Your task to perform on an android device: Open calendar and show me the first week of next month Image 0: 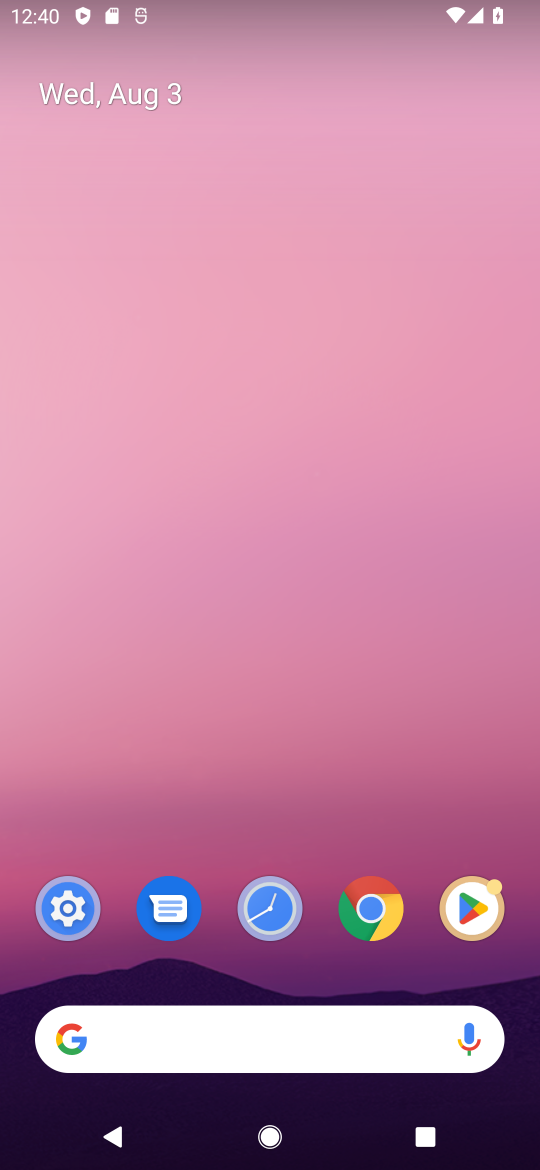
Step 0: drag from (210, 874) to (282, 217)
Your task to perform on an android device: Open calendar and show me the first week of next month Image 1: 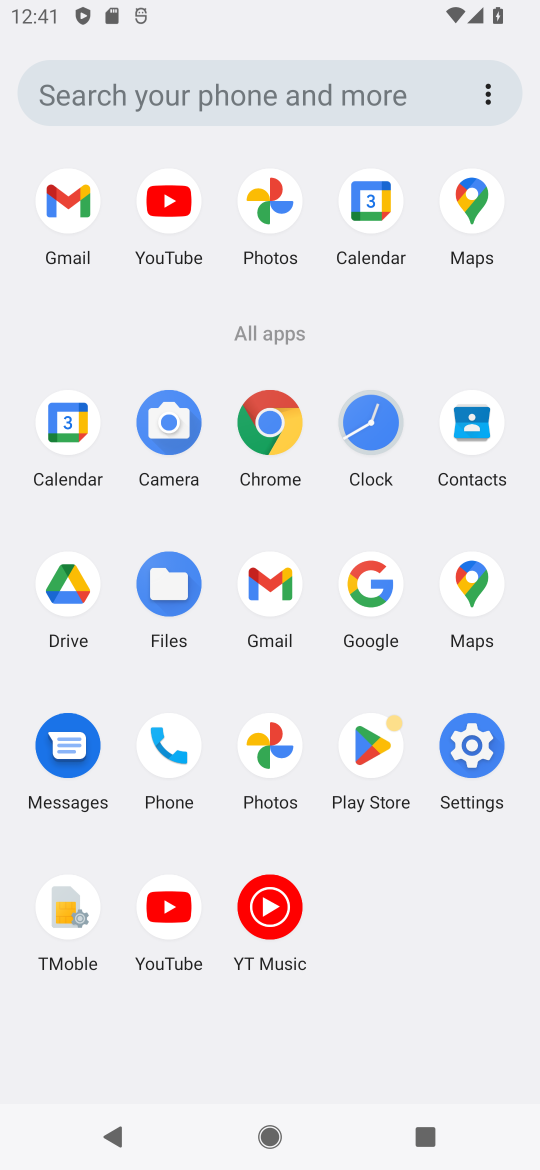
Step 1: click (76, 467)
Your task to perform on an android device: Open calendar and show me the first week of next month Image 2: 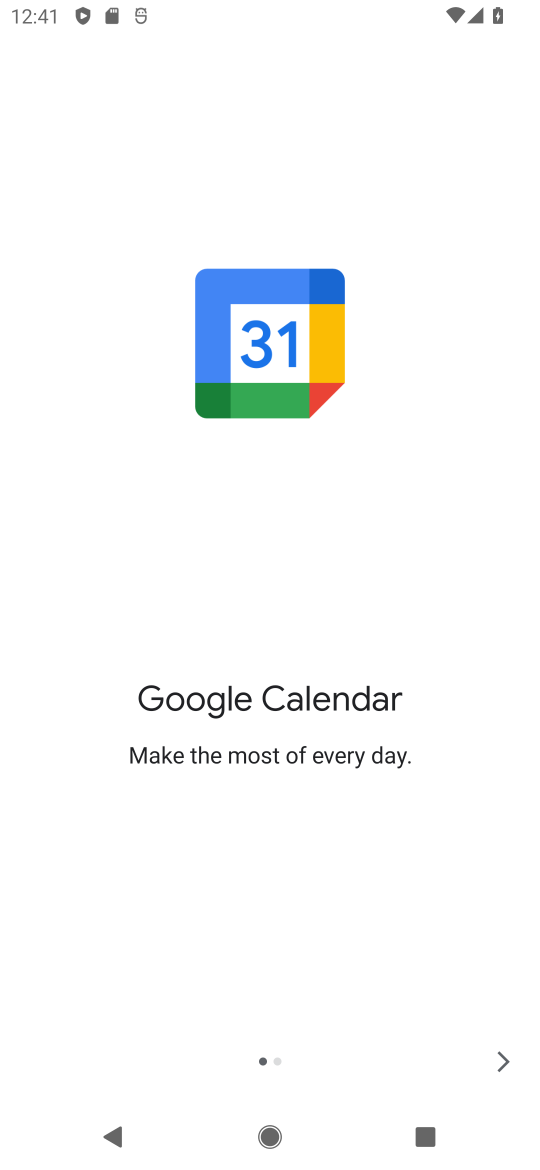
Step 2: click (491, 1062)
Your task to perform on an android device: Open calendar and show me the first week of next month Image 3: 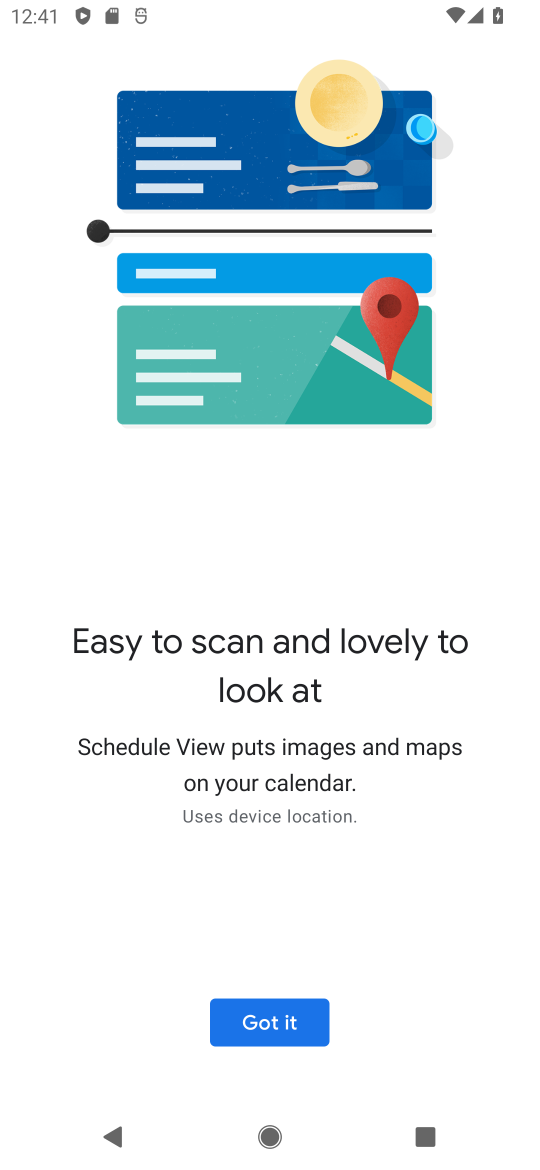
Step 3: click (264, 1023)
Your task to perform on an android device: Open calendar and show me the first week of next month Image 4: 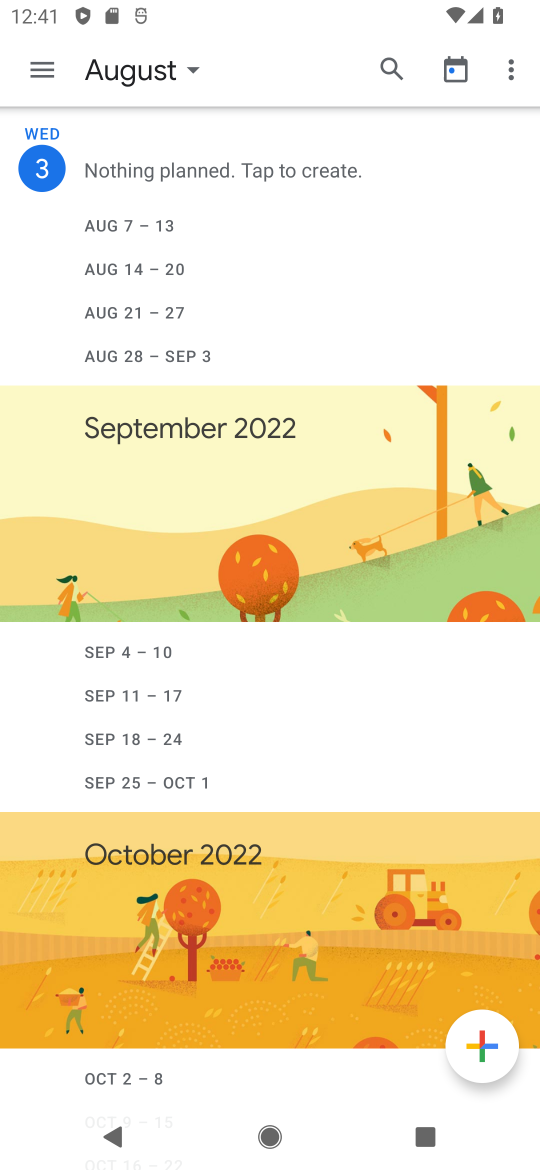
Step 4: click (43, 69)
Your task to perform on an android device: Open calendar and show me the first week of next month Image 5: 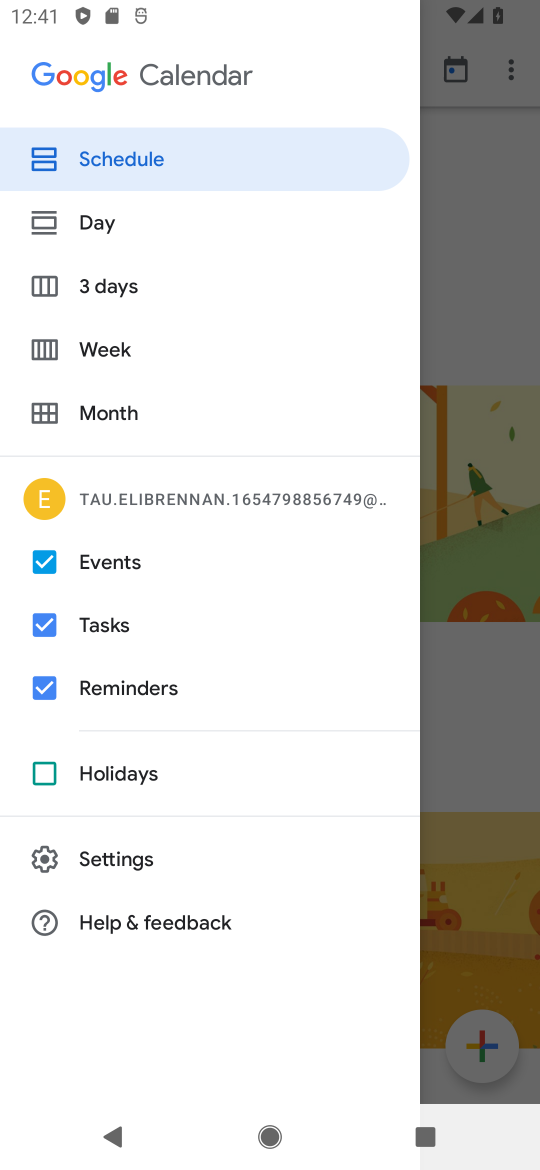
Step 5: click (86, 350)
Your task to perform on an android device: Open calendar and show me the first week of next month Image 6: 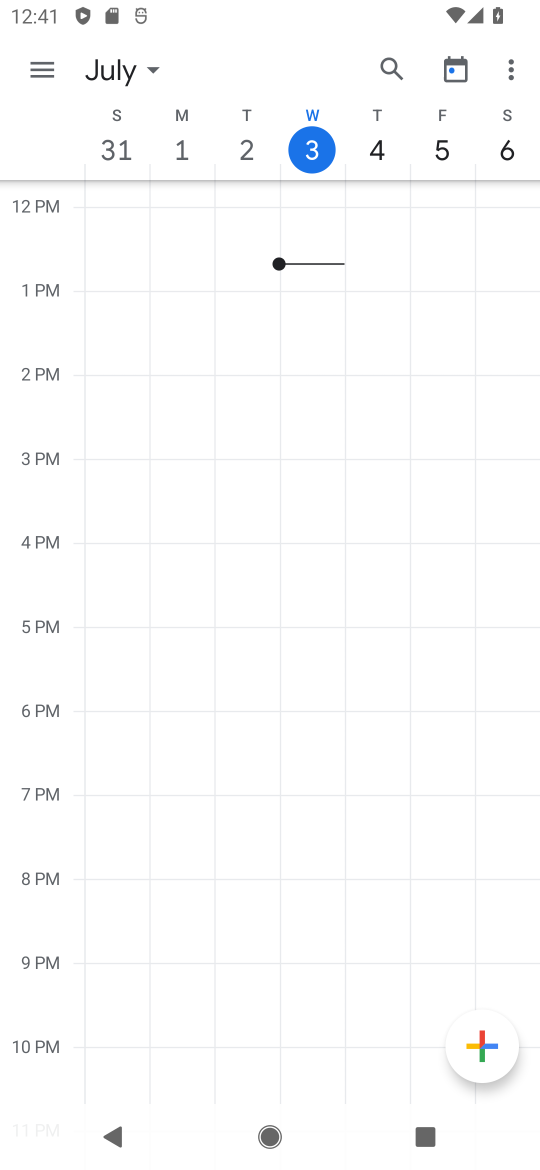
Step 6: click (126, 77)
Your task to perform on an android device: Open calendar and show me the first week of next month Image 7: 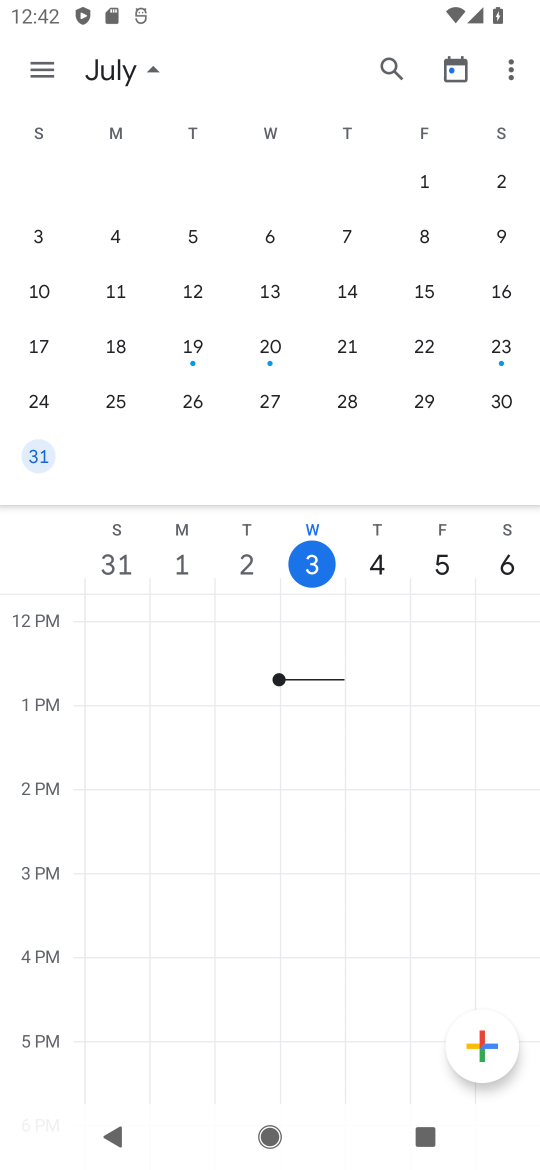
Step 7: drag from (109, 330) to (195, 334)
Your task to perform on an android device: Open calendar and show me the first week of next month Image 8: 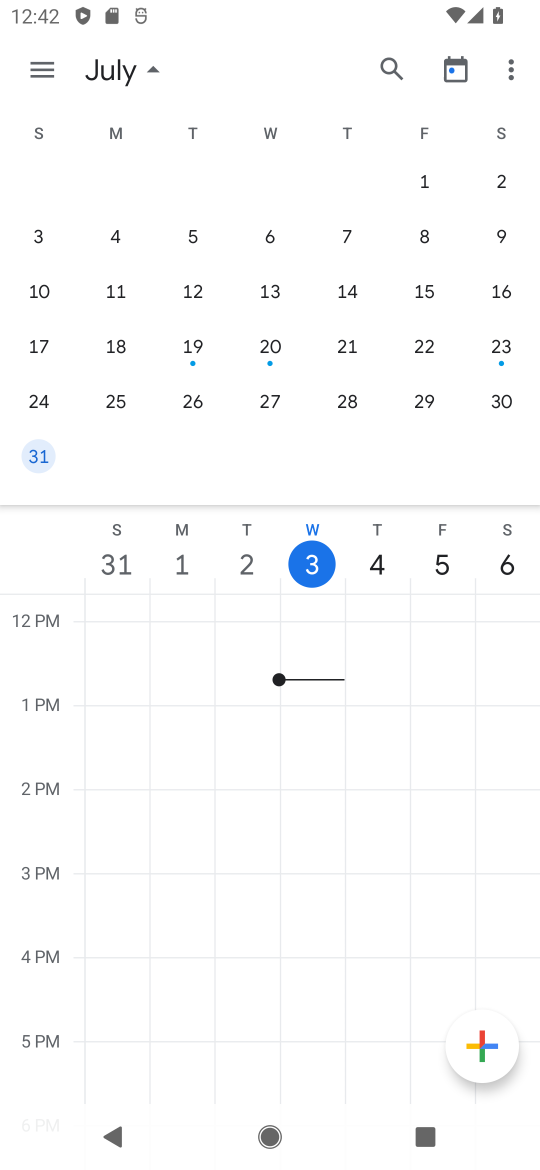
Step 8: drag from (367, 294) to (31, 317)
Your task to perform on an android device: Open calendar and show me the first week of next month Image 9: 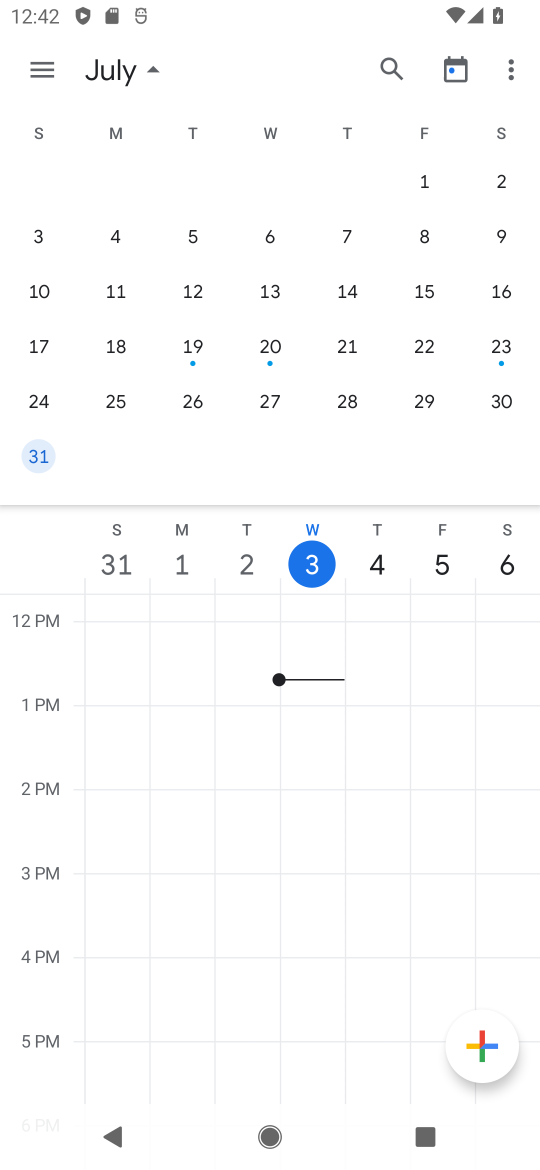
Step 9: drag from (406, 267) to (75, 267)
Your task to perform on an android device: Open calendar and show me the first week of next month Image 10: 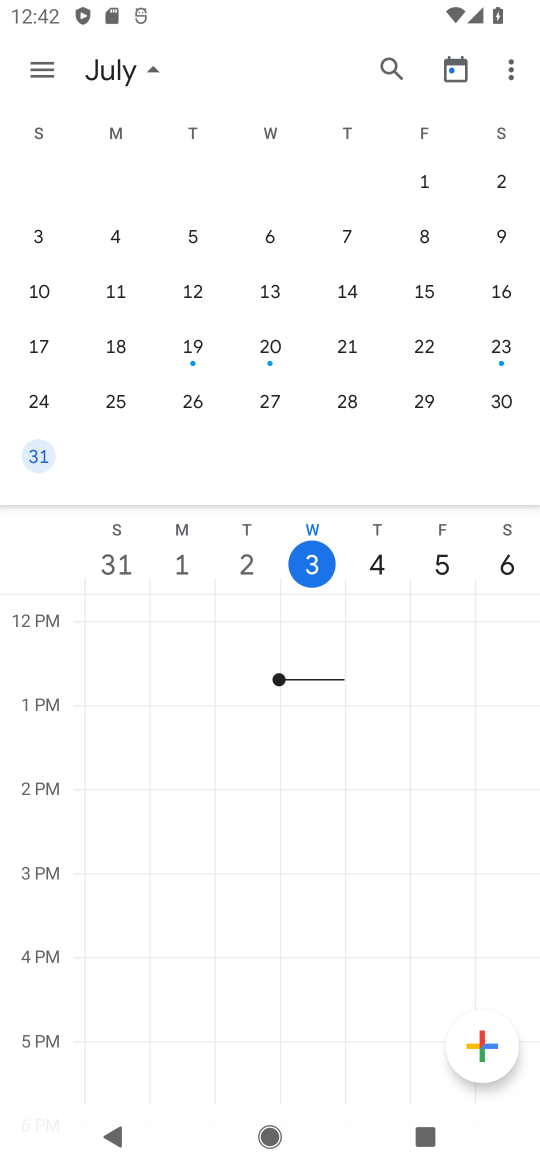
Step 10: drag from (308, 241) to (163, 285)
Your task to perform on an android device: Open calendar and show me the first week of next month Image 11: 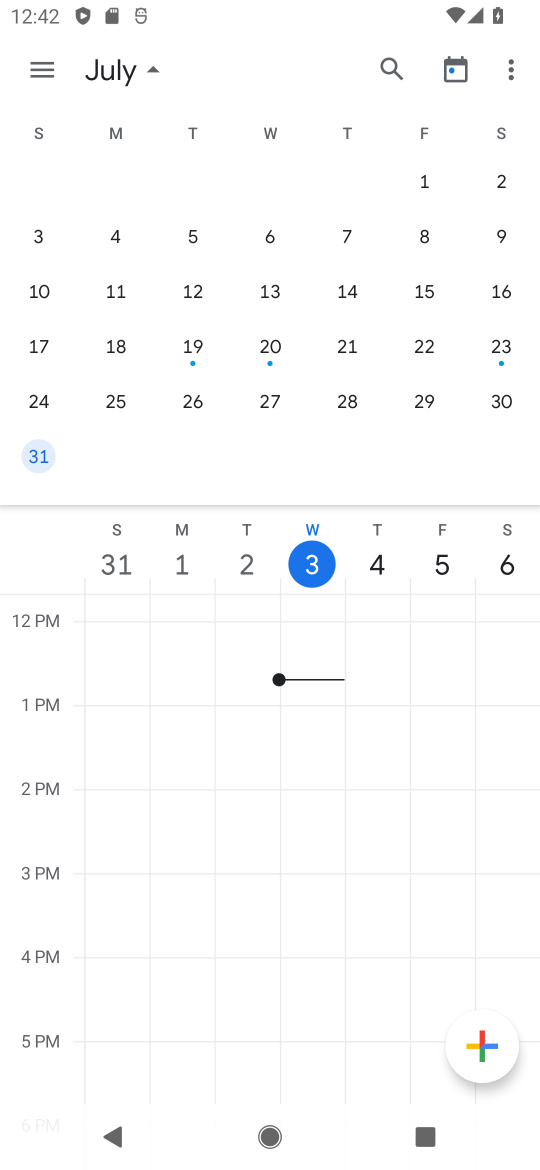
Step 11: drag from (370, 295) to (67, 316)
Your task to perform on an android device: Open calendar and show me the first week of next month Image 12: 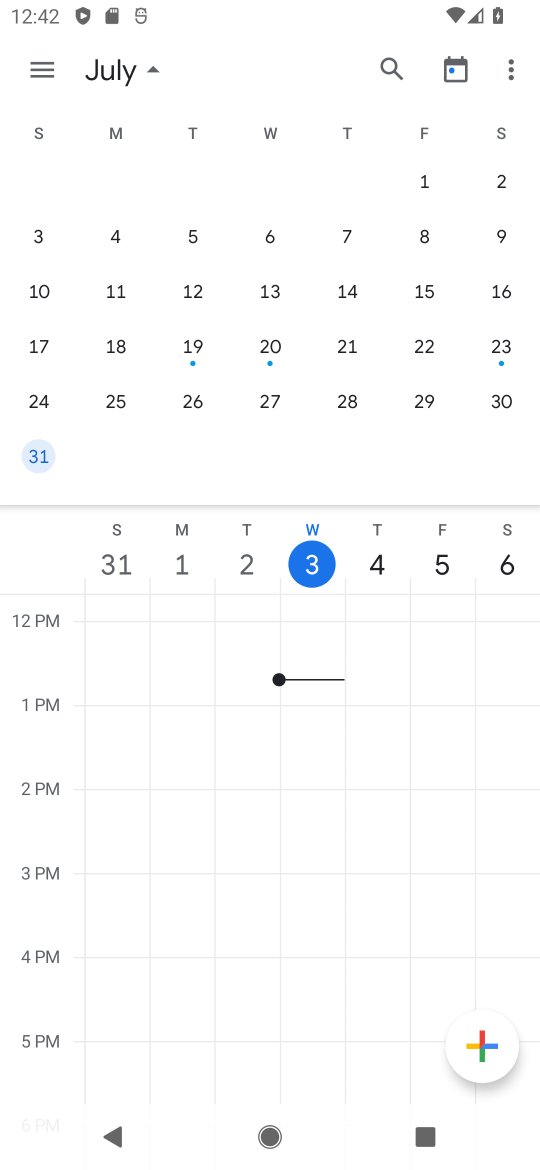
Step 12: click (11, 263)
Your task to perform on an android device: Open calendar and show me the first week of next month Image 13: 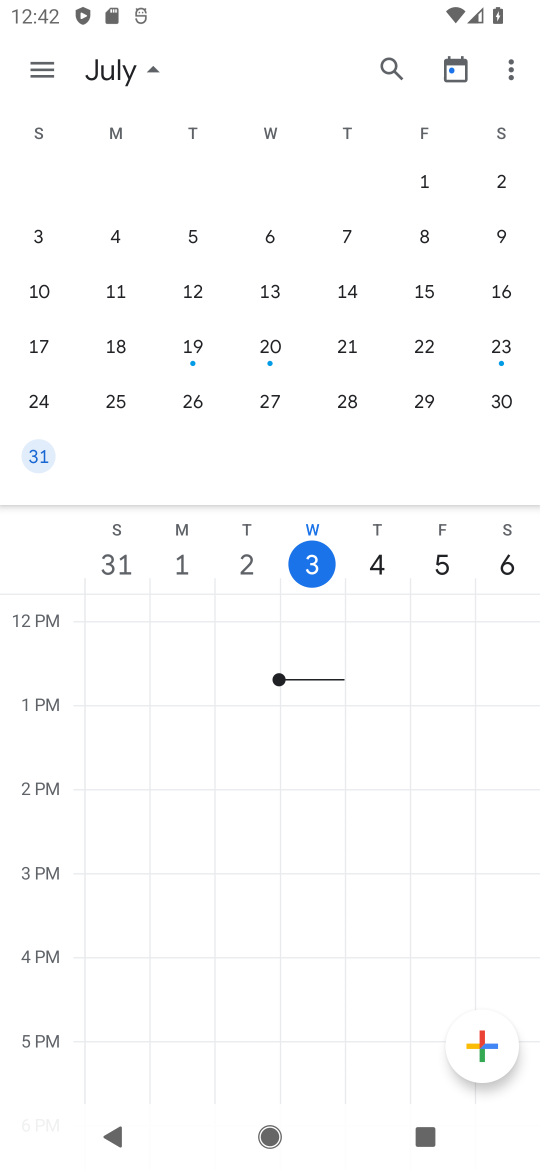
Step 13: drag from (460, 274) to (48, 405)
Your task to perform on an android device: Open calendar and show me the first week of next month Image 14: 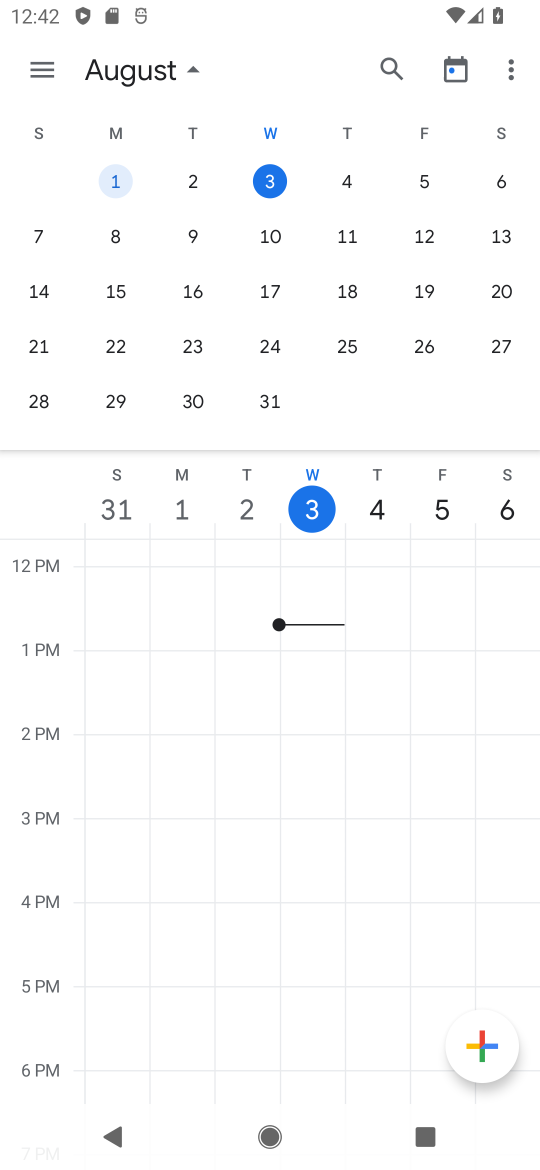
Step 14: drag from (463, 279) to (5, 268)
Your task to perform on an android device: Open calendar and show me the first week of next month Image 15: 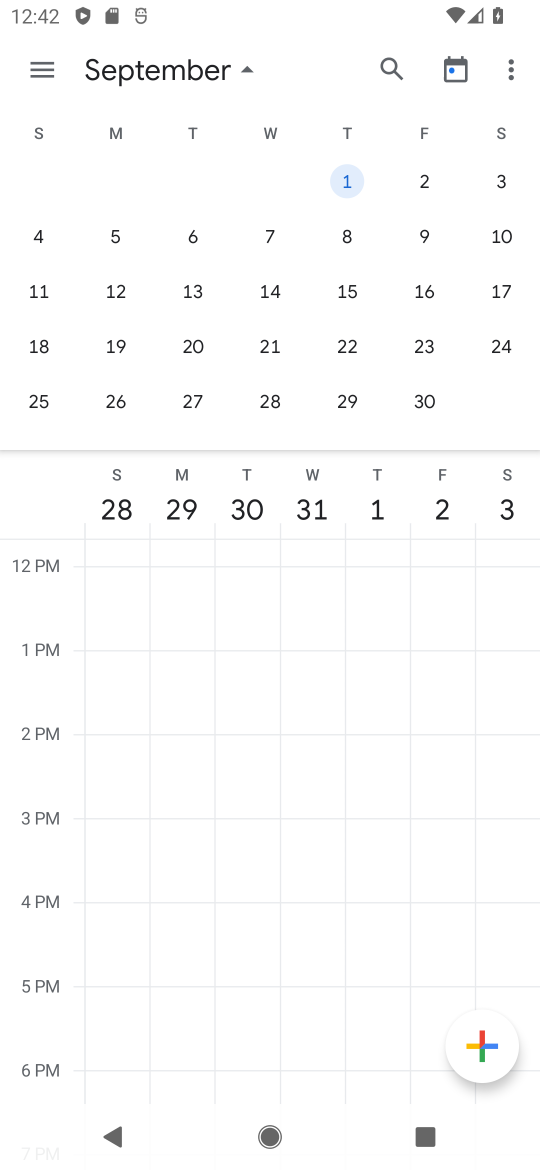
Step 15: drag from (336, 270) to (126, 216)
Your task to perform on an android device: Open calendar and show me the first week of next month Image 16: 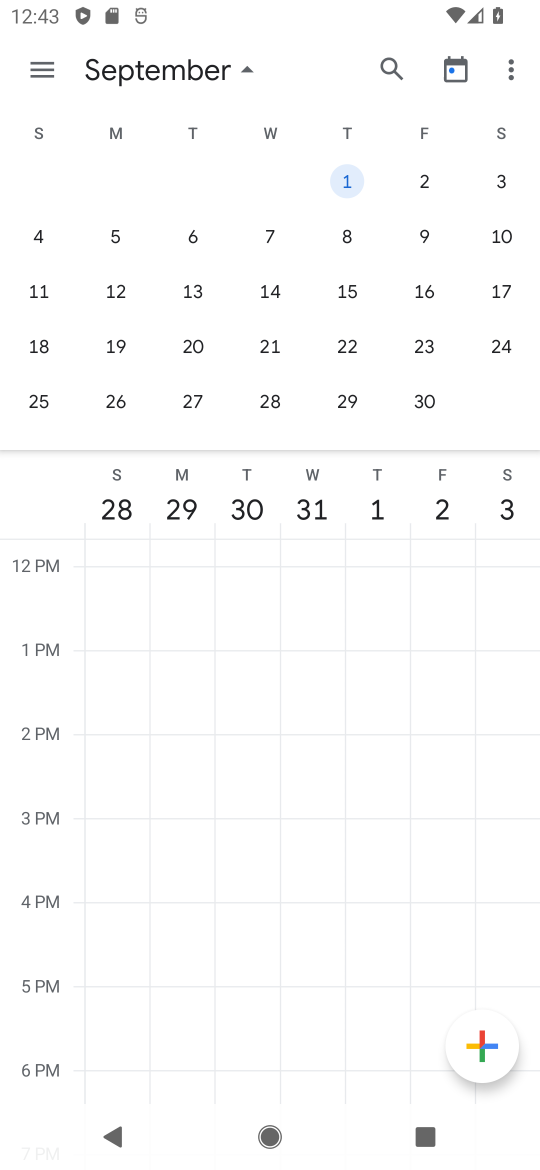
Step 16: click (348, 180)
Your task to perform on an android device: Open calendar and show me the first week of next month Image 17: 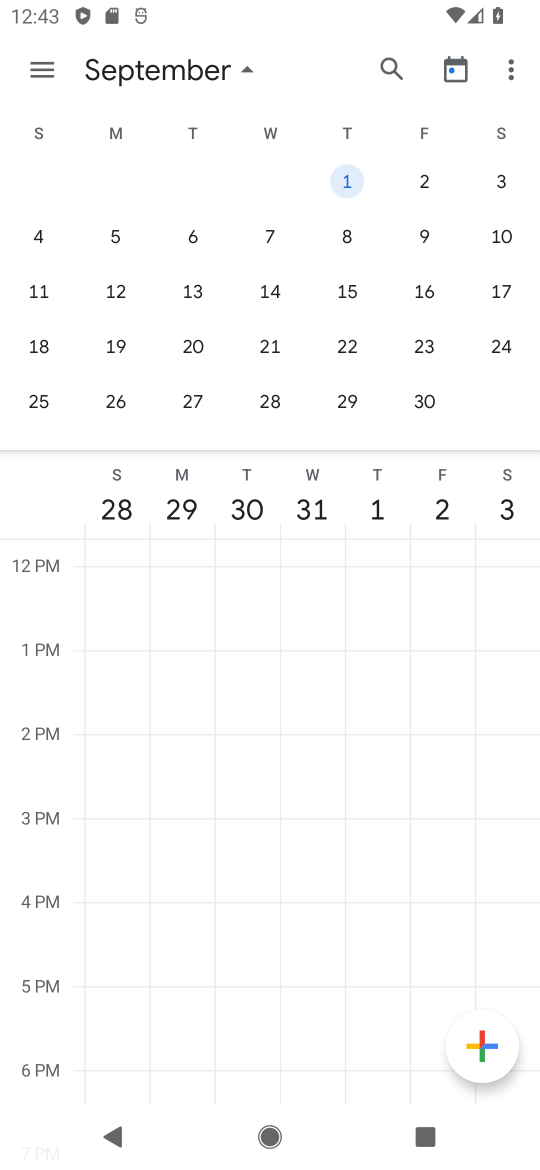
Step 17: task complete